Your task to perform on an android device: Do I have any events tomorrow? Image 0: 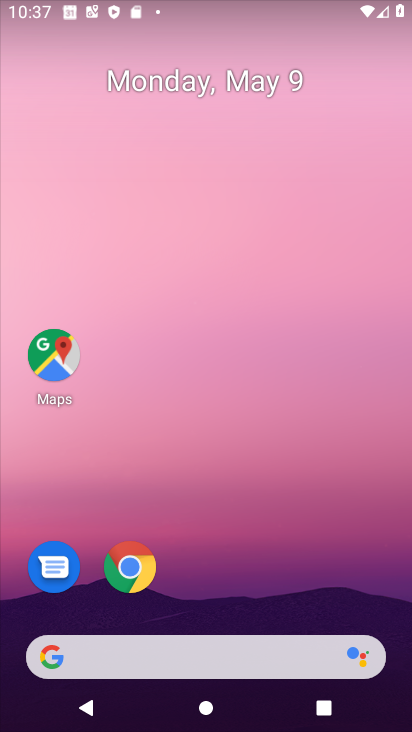
Step 0: drag from (197, 644) to (124, 141)
Your task to perform on an android device: Do I have any events tomorrow? Image 1: 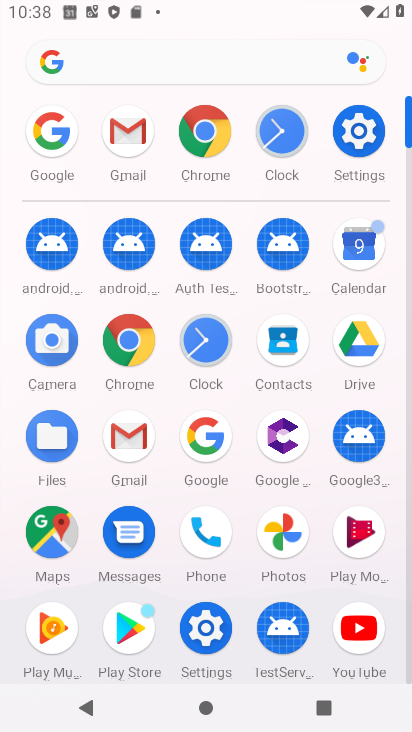
Step 1: click (346, 258)
Your task to perform on an android device: Do I have any events tomorrow? Image 2: 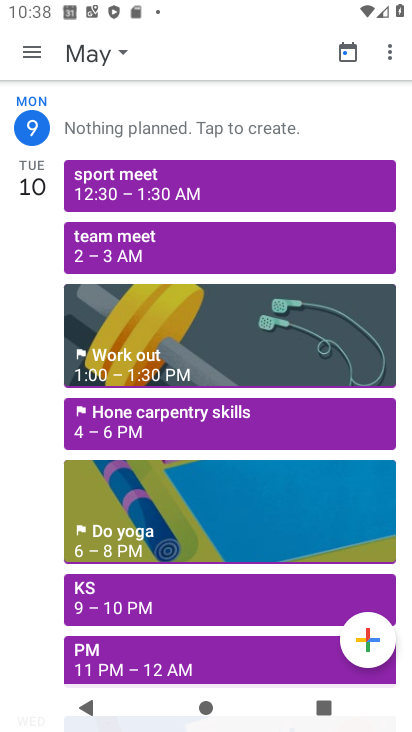
Step 2: task complete